Your task to perform on an android device: Search for seafood restaurants on Google Maps Image 0: 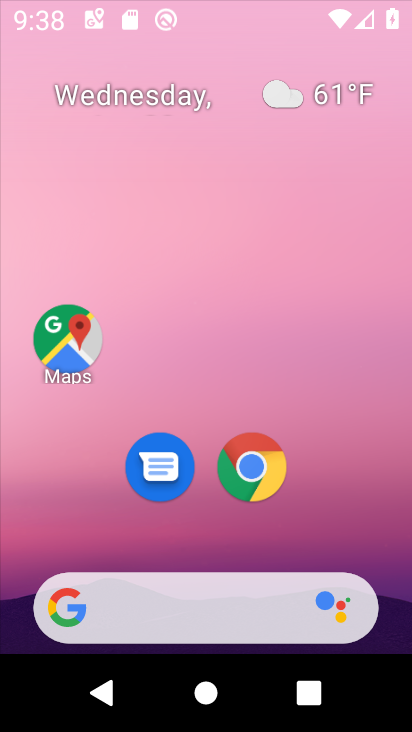
Step 0: drag from (335, 512) to (323, 83)
Your task to perform on an android device: Search for seafood restaurants on Google Maps Image 1: 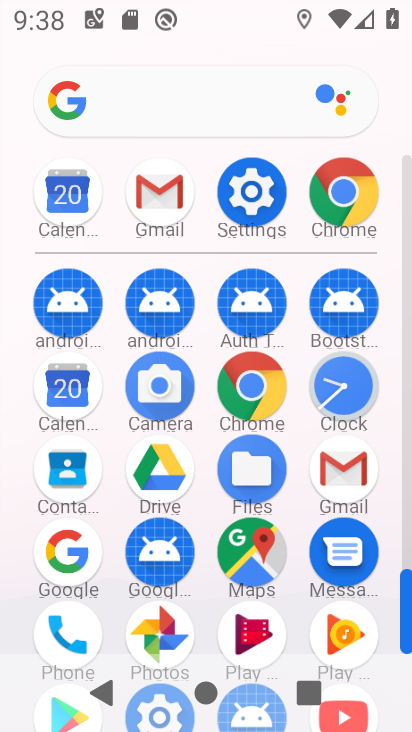
Step 1: click (258, 559)
Your task to perform on an android device: Search for seafood restaurants on Google Maps Image 2: 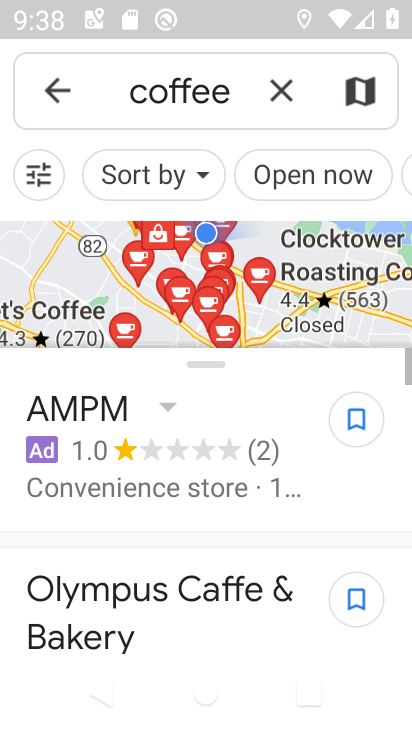
Step 2: click (290, 91)
Your task to perform on an android device: Search for seafood restaurants on Google Maps Image 3: 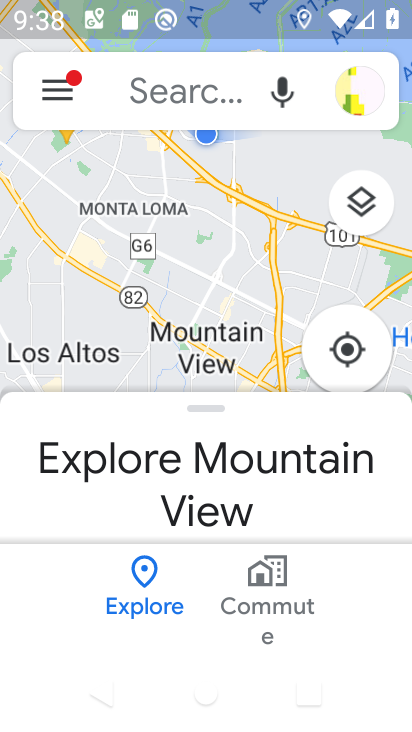
Step 3: click (191, 108)
Your task to perform on an android device: Search for seafood restaurants on Google Maps Image 4: 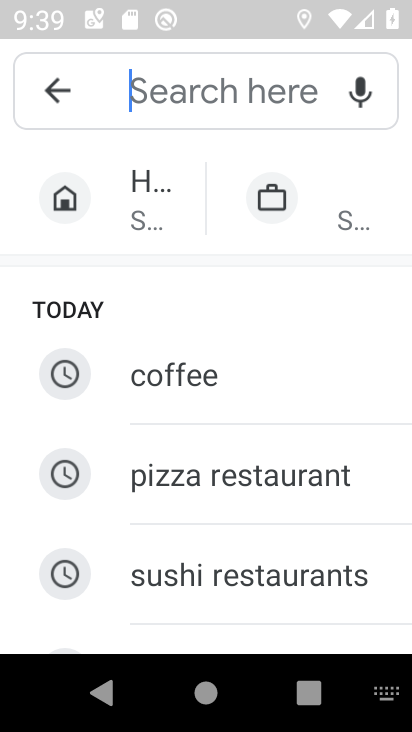
Step 4: drag from (221, 559) to (204, 215)
Your task to perform on an android device: Search for seafood restaurants on Google Maps Image 5: 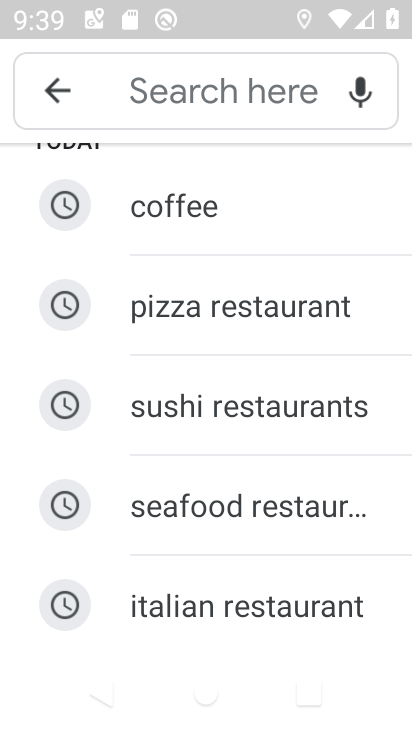
Step 5: click (211, 518)
Your task to perform on an android device: Search for seafood restaurants on Google Maps Image 6: 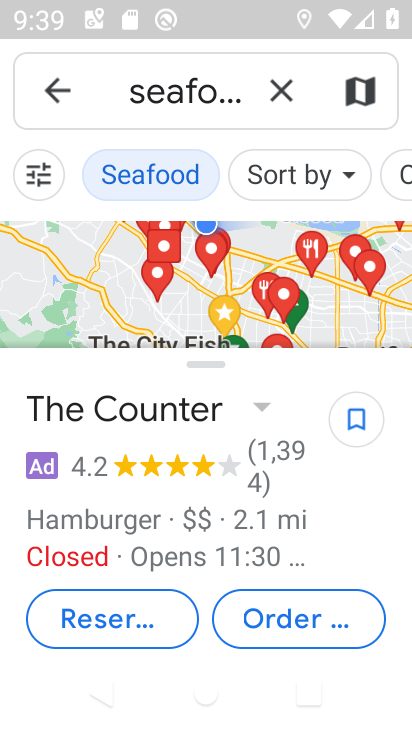
Step 6: task complete